Your task to perform on an android device: turn off notifications in google photos Image 0: 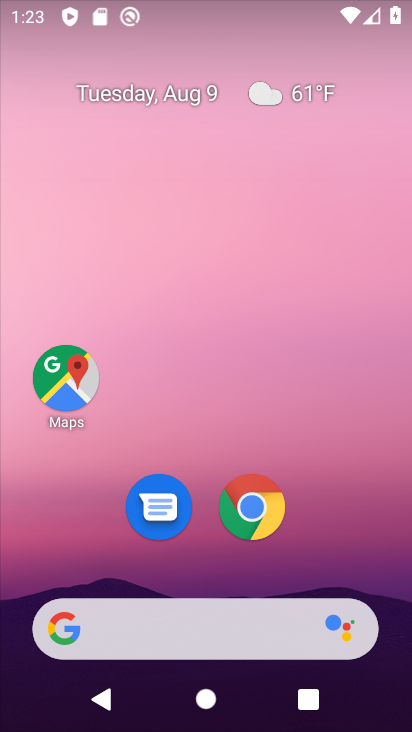
Step 0: drag from (253, 610) to (342, 74)
Your task to perform on an android device: turn off notifications in google photos Image 1: 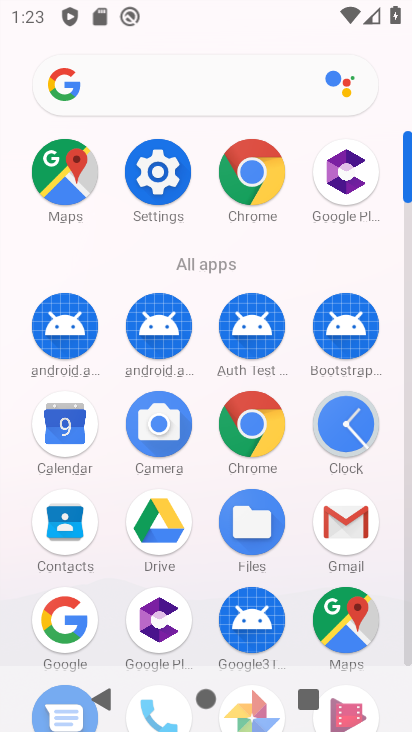
Step 1: drag from (192, 633) to (315, 122)
Your task to perform on an android device: turn off notifications in google photos Image 2: 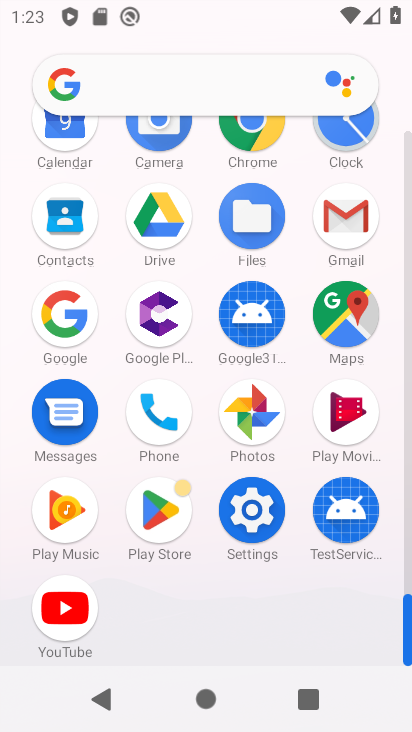
Step 2: click (245, 402)
Your task to perform on an android device: turn off notifications in google photos Image 3: 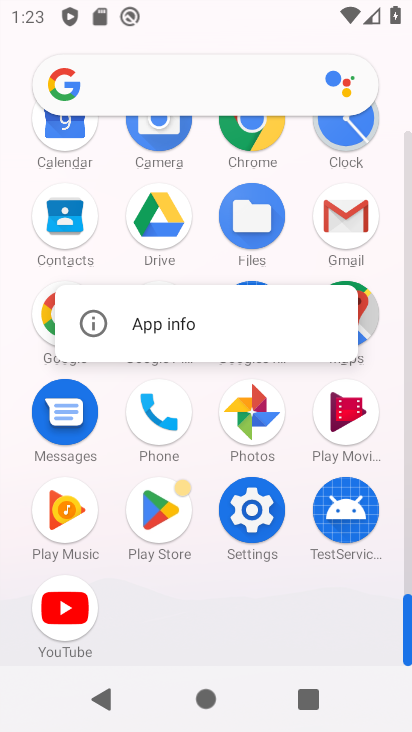
Step 3: click (87, 322)
Your task to perform on an android device: turn off notifications in google photos Image 4: 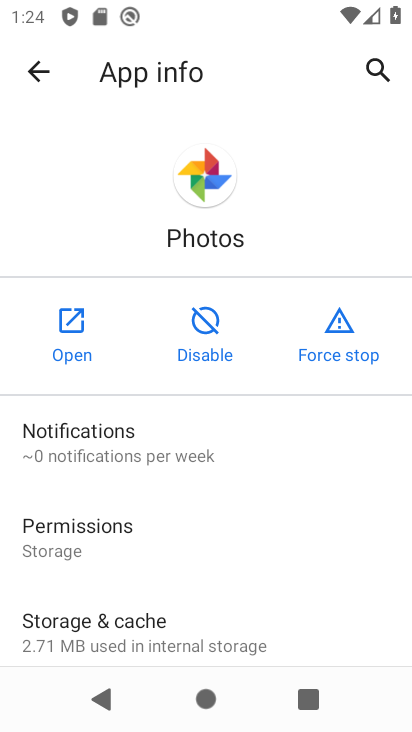
Step 4: click (116, 430)
Your task to perform on an android device: turn off notifications in google photos Image 5: 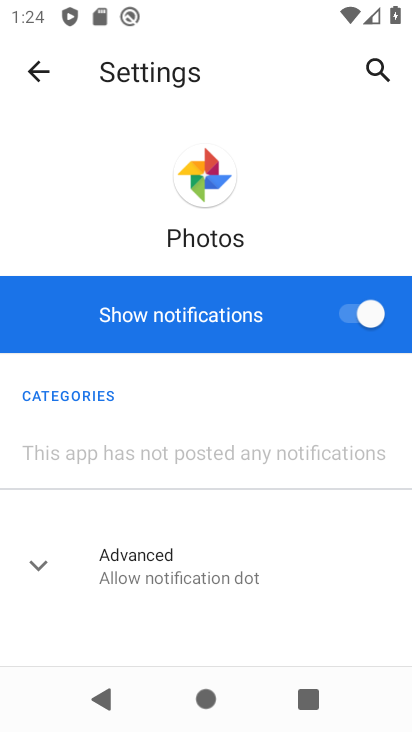
Step 5: click (359, 310)
Your task to perform on an android device: turn off notifications in google photos Image 6: 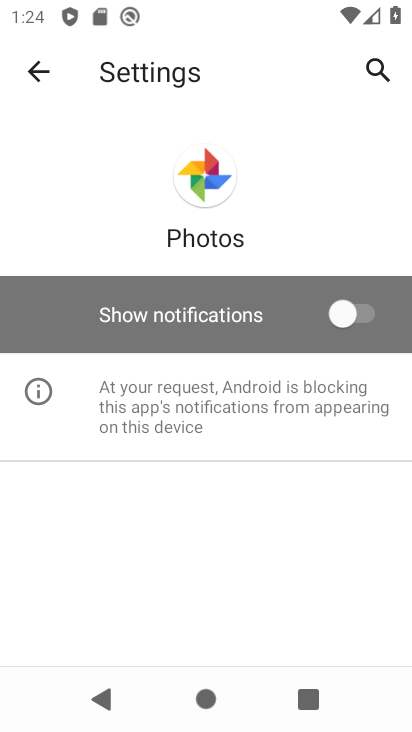
Step 6: task complete